Your task to perform on an android device: toggle notifications settings in the gmail app Image 0: 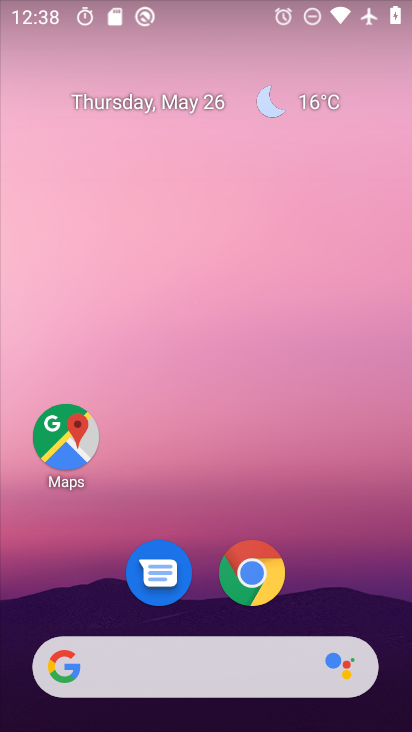
Step 0: drag from (354, 598) to (388, 17)
Your task to perform on an android device: toggle notifications settings in the gmail app Image 1: 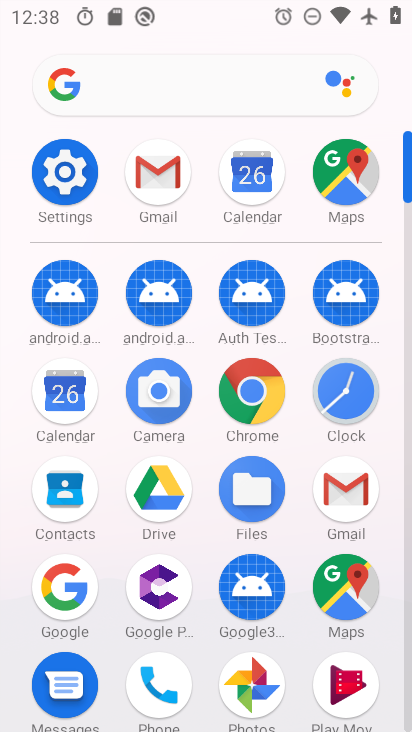
Step 1: click (163, 170)
Your task to perform on an android device: toggle notifications settings in the gmail app Image 2: 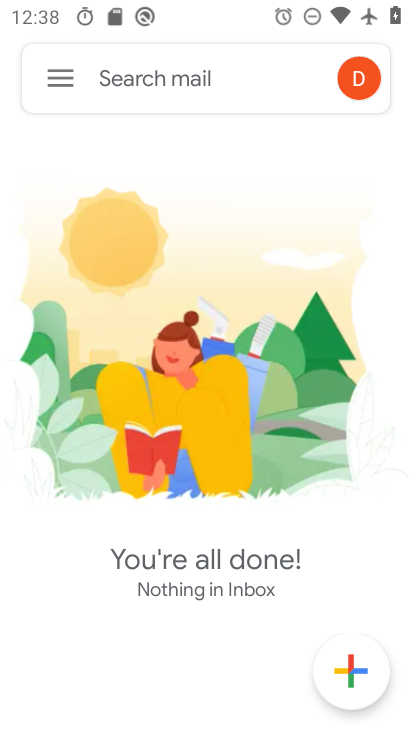
Step 2: click (57, 72)
Your task to perform on an android device: toggle notifications settings in the gmail app Image 3: 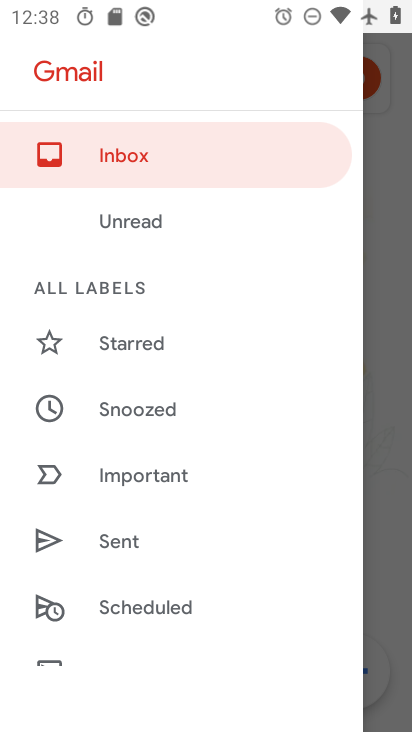
Step 3: drag from (204, 556) to (241, 106)
Your task to perform on an android device: toggle notifications settings in the gmail app Image 4: 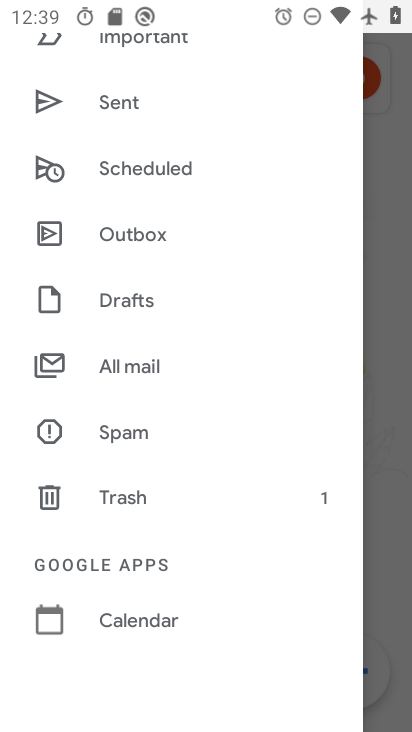
Step 4: drag from (165, 550) to (178, 95)
Your task to perform on an android device: toggle notifications settings in the gmail app Image 5: 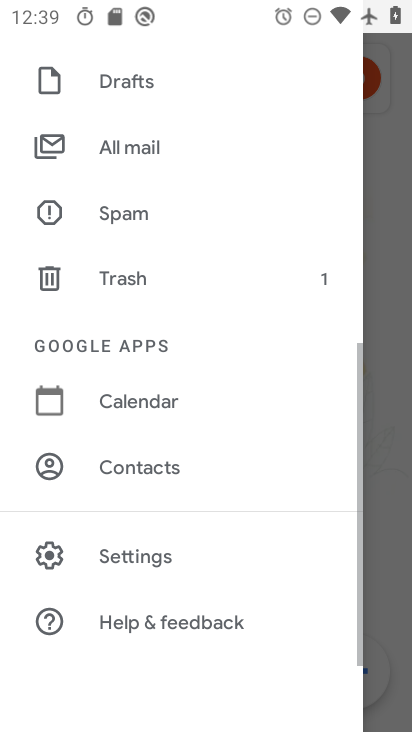
Step 5: click (130, 555)
Your task to perform on an android device: toggle notifications settings in the gmail app Image 6: 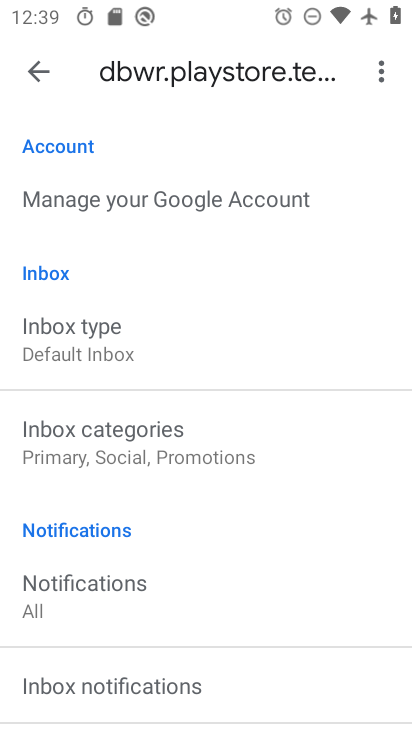
Step 6: click (27, 67)
Your task to perform on an android device: toggle notifications settings in the gmail app Image 7: 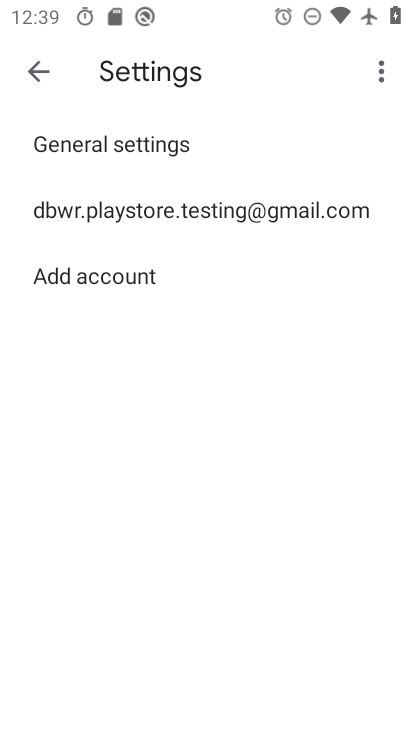
Step 7: click (83, 142)
Your task to perform on an android device: toggle notifications settings in the gmail app Image 8: 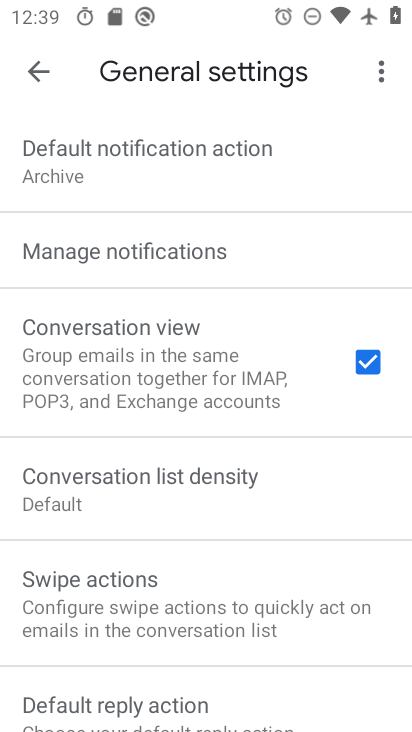
Step 8: click (109, 260)
Your task to perform on an android device: toggle notifications settings in the gmail app Image 9: 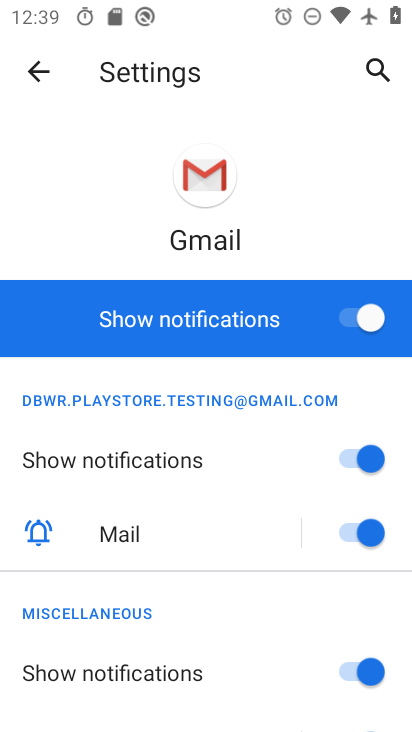
Step 9: click (366, 319)
Your task to perform on an android device: toggle notifications settings in the gmail app Image 10: 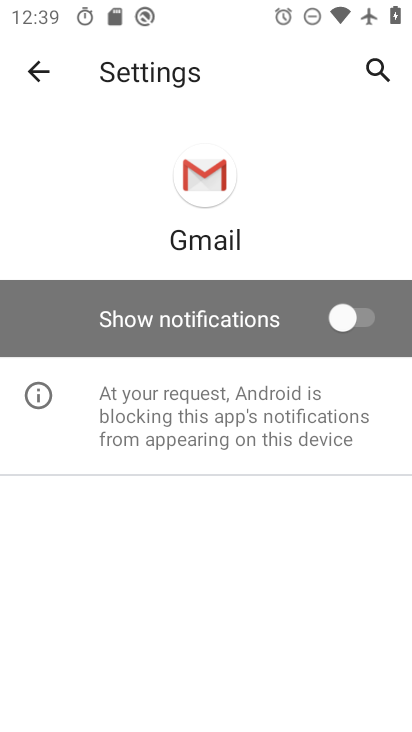
Step 10: task complete